Your task to perform on an android device: turn pop-ups off in chrome Image 0: 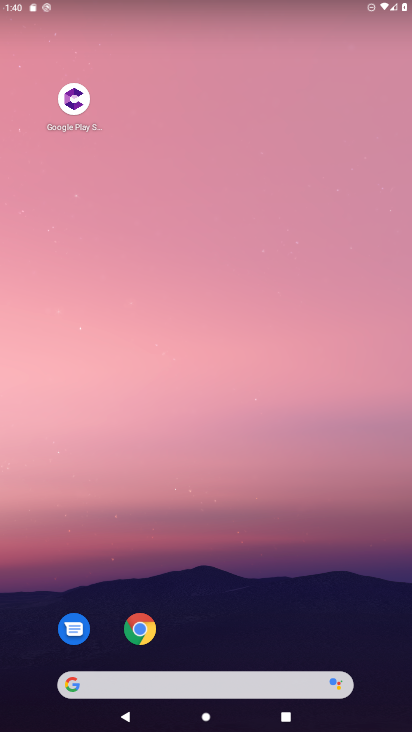
Step 0: click (141, 632)
Your task to perform on an android device: turn pop-ups off in chrome Image 1: 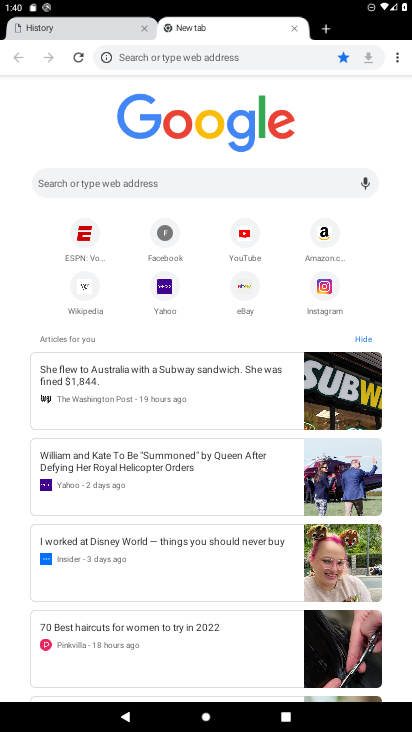
Step 1: click (394, 62)
Your task to perform on an android device: turn pop-ups off in chrome Image 2: 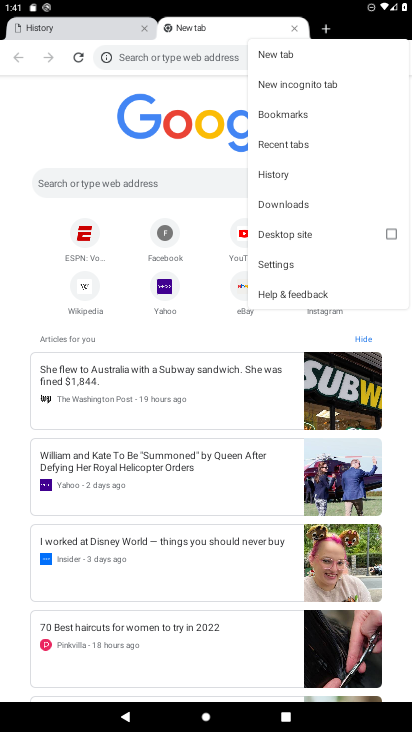
Step 2: click (276, 254)
Your task to perform on an android device: turn pop-ups off in chrome Image 3: 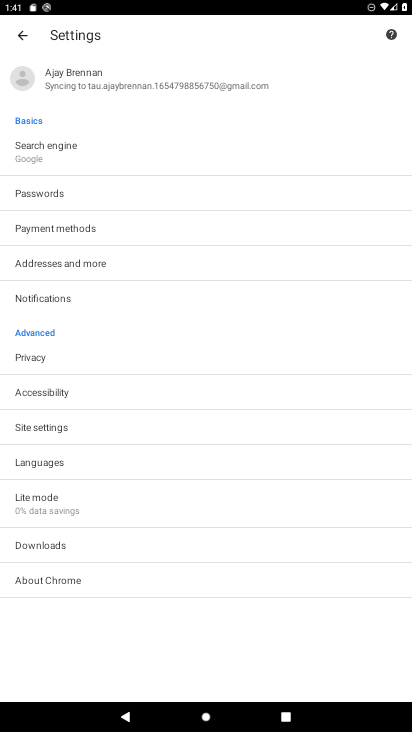
Step 3: click (36, 431)
Your task to perform on an android device: turn pop-ups off in chrome Image 4: 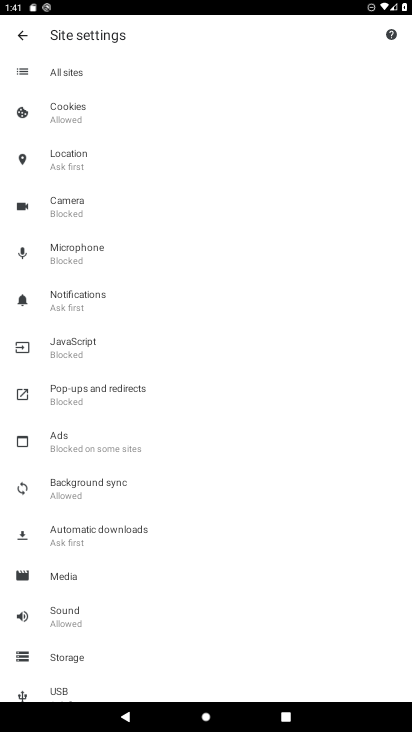
Step 4: click (74, 387)
Your task to perform on an android device: turn pop-ups off in chrome Image 5: 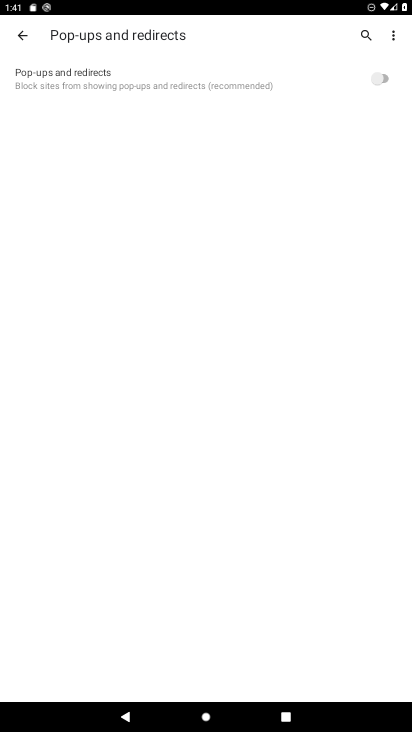
Step 5: task complete